Your task to perform on an android device: What's the weather? Image 0: 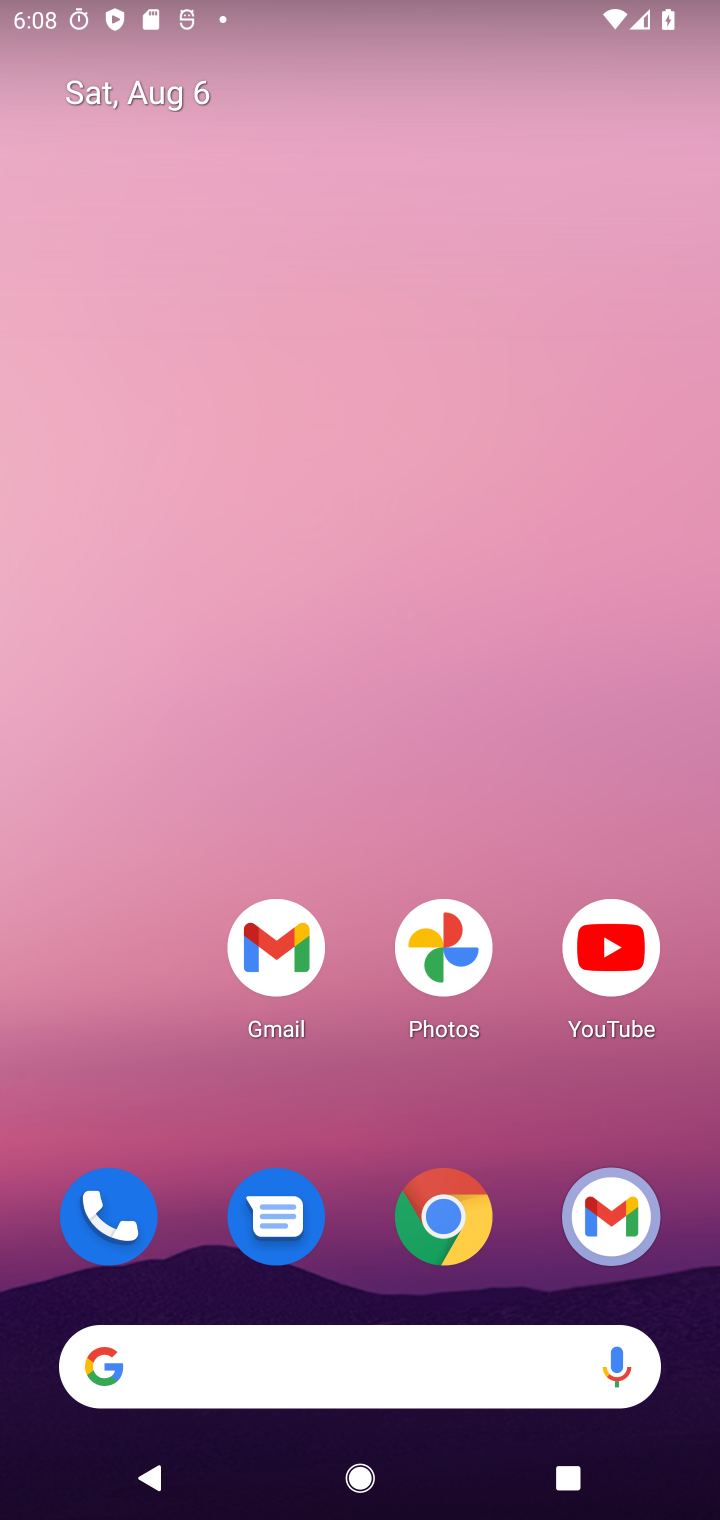
Step 0: drag from (554, 1125) to (555, 188)
Your task to perform on an android device: What's the weather? Image 1: 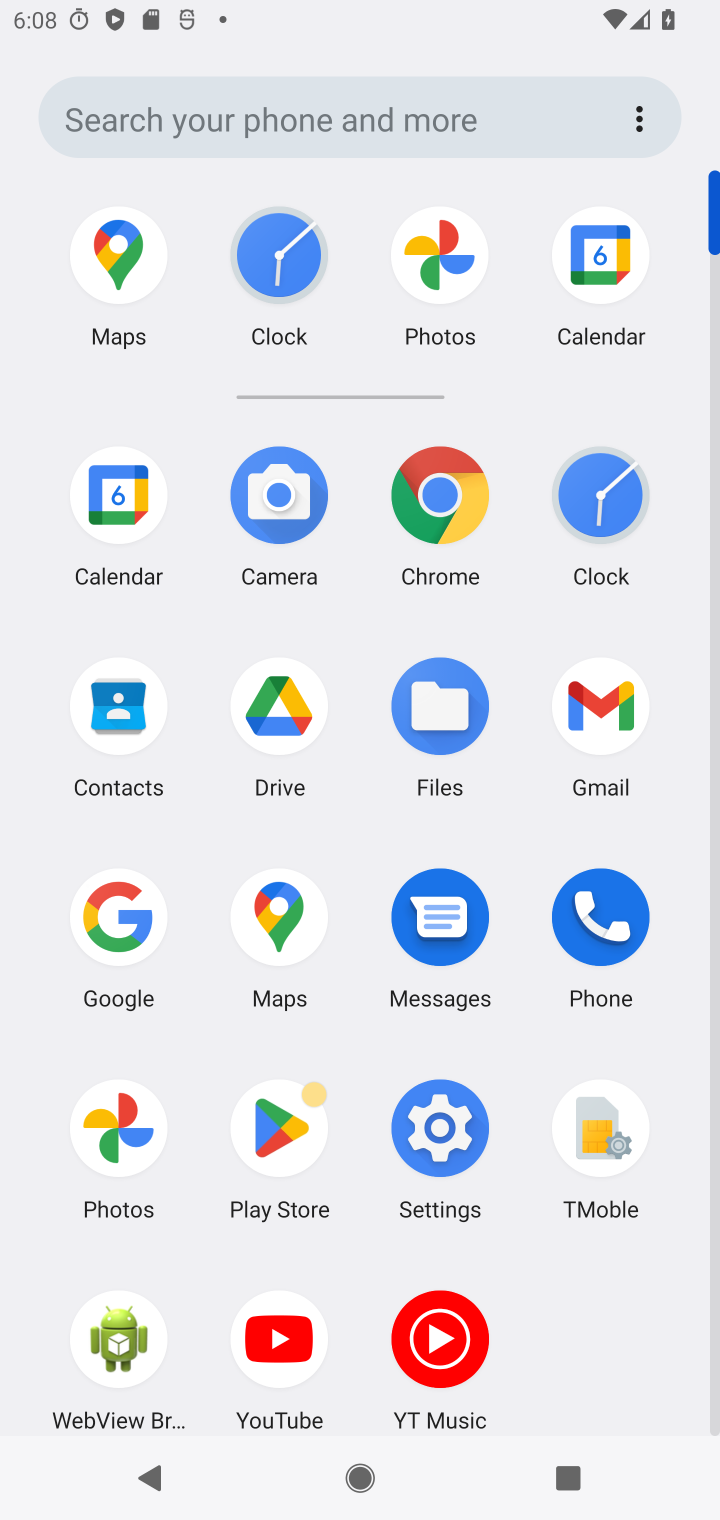
Step 1: click (431, 499)
Your task to perform on an android device: What's the weather? Image 2: 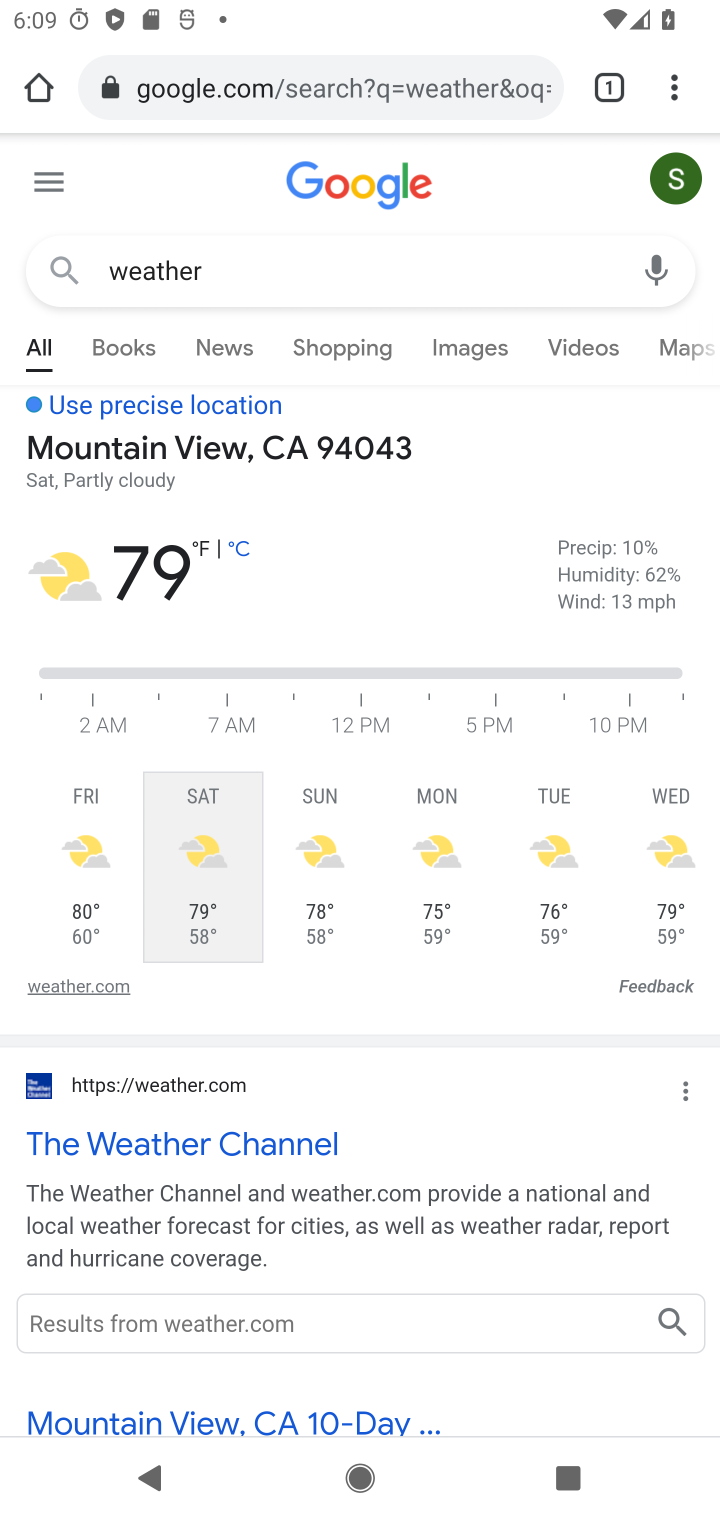
Step 2: click (86, 813)
Your task to perform on an android device: What's the weather? Image 3: 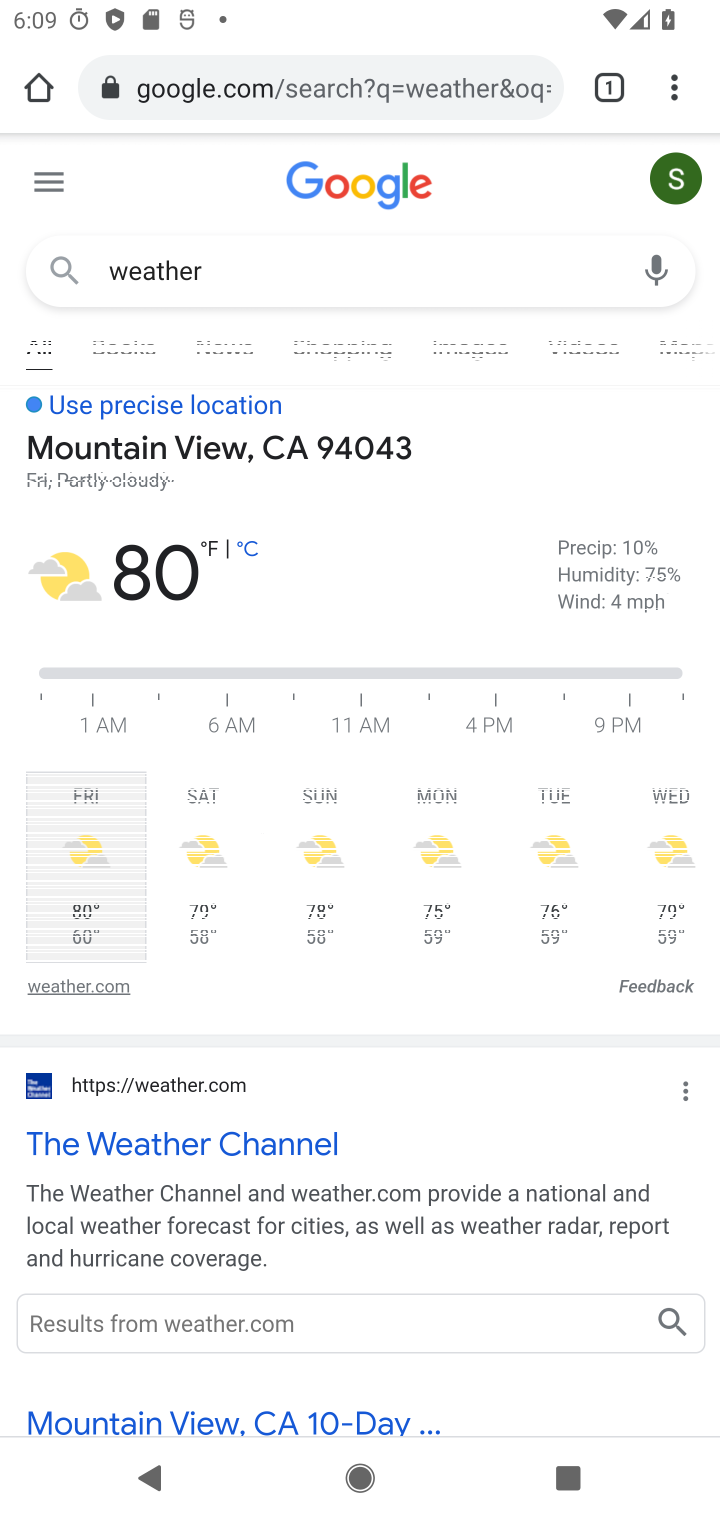
Step 3: task complete